Your task to perform on an android device: see tabs open on other devices in the chrome app Image 0: 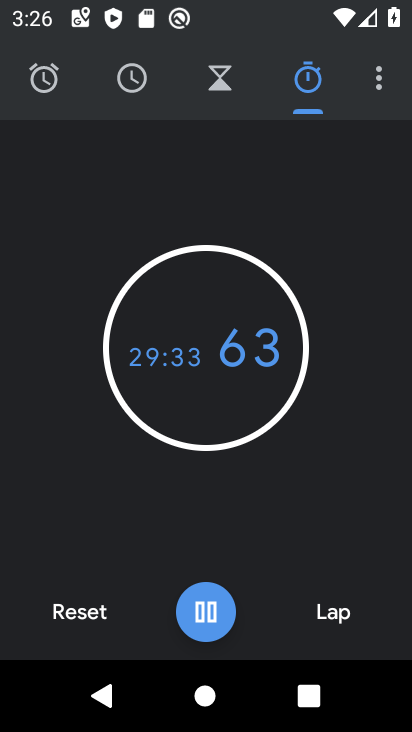
Step 0: press home button
Your task to perform on an android device: see tabs open on other devices in the chrome app Image 1: 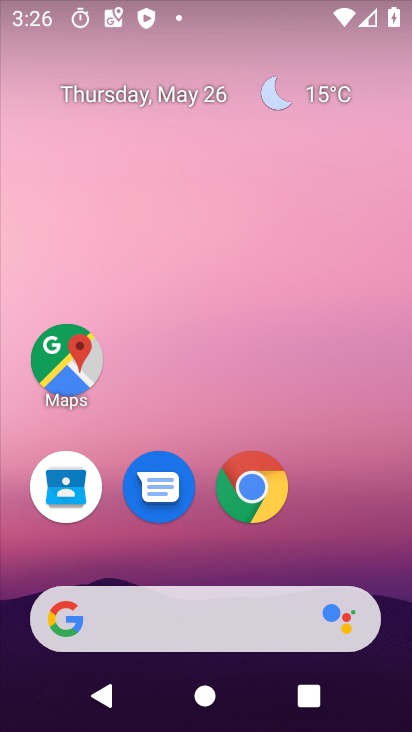
Step 1: click (237, 496)
Your task to perform on an android device: see tabs open on other devices in the chrome app Image 2: 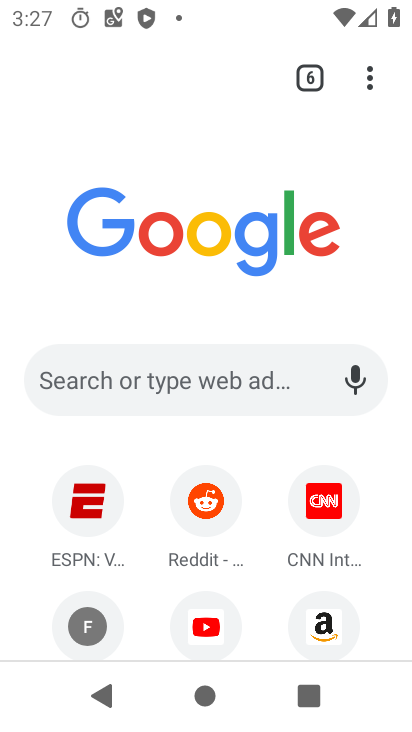
Step 2: click (373, 88)
Your task to perform on an android device: see tabs open on other devices in the chrome app Image 3: 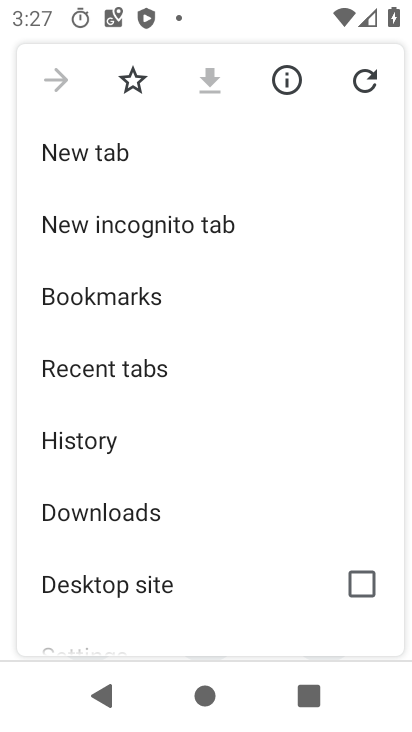
Step 3: click (157, 378)
Your task to perform on an android device: see tabs open on other devices in the chrome app Image 4: 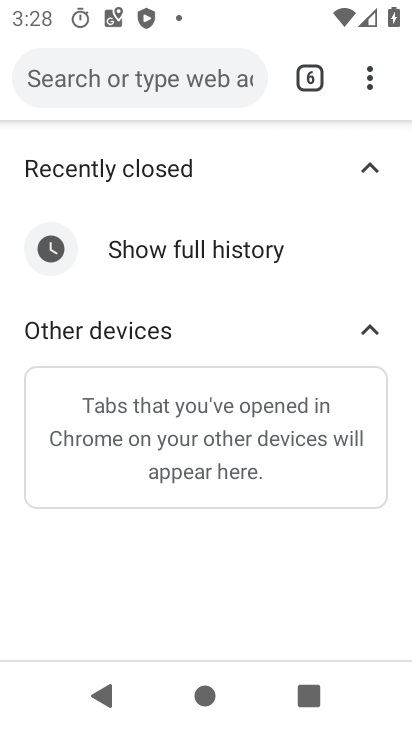
Step 4: task complete